Your task to perform on an android device: uninstall "eBay: The shopping marketplace" Image 0: 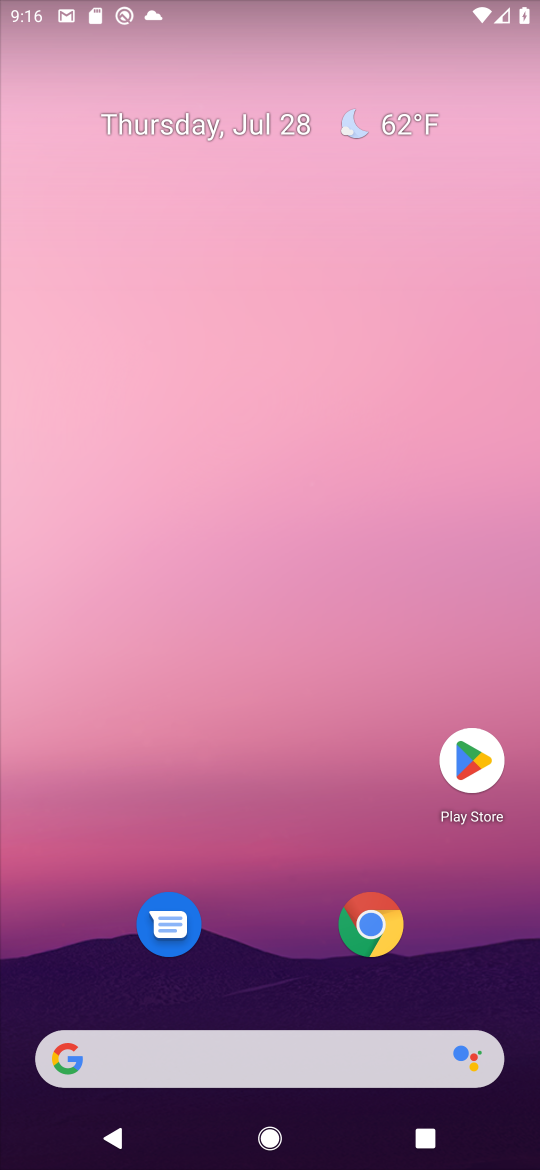
Step 0: press home button
Your task to perform on an android device: uninstall "eBay: The shopping marketplace" Image 1: 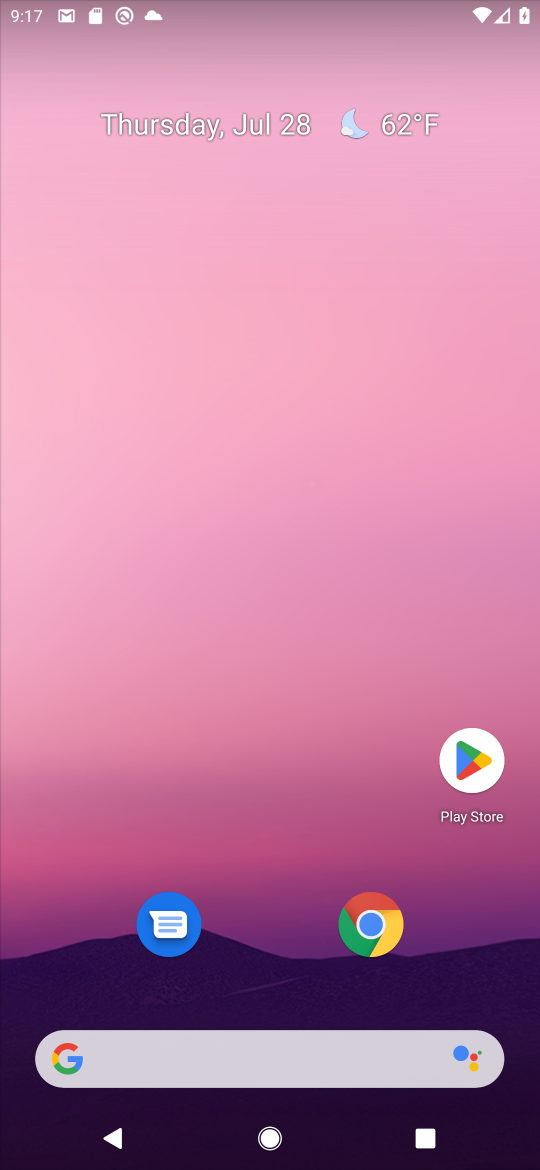
Step 1: click (467, 771)
Your task to perform on an android device: uninstall "eBay: The shopping marketplace" Image 2: 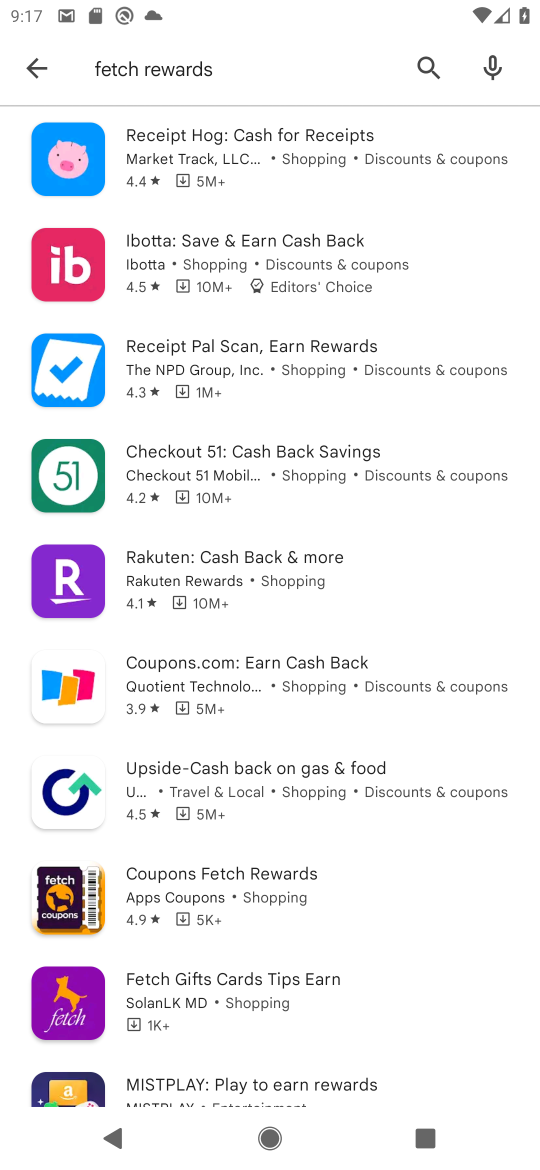
Step 2: click (466, 776)
Your task to perform on an android device: uninstall "eBay: The shopping marketplace" Image 3: 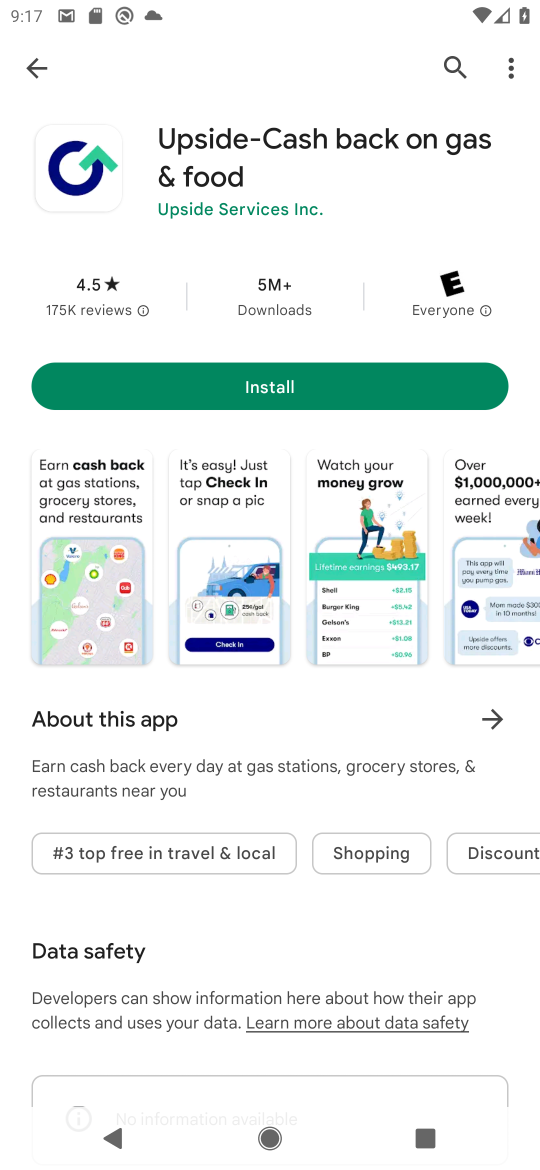
Step 3: click (33, 65)
Your task to perform on an android device: uninstall "eBay: The shopping marketplace" Image 4: 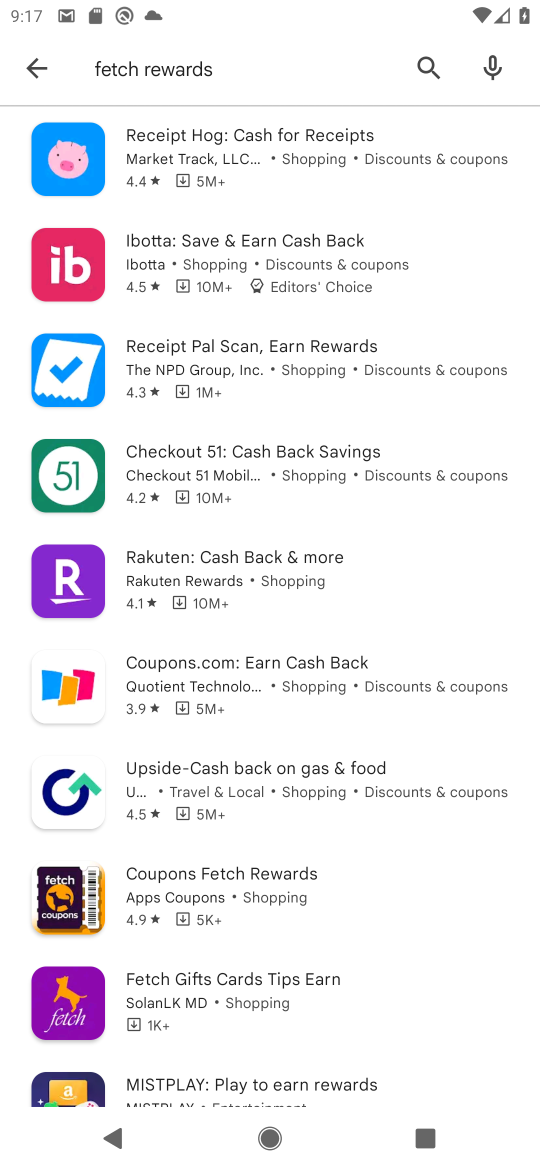
Step 4: click (422, 51)
Your task to perform on an android device: uninstall "eBay: The shopping marketplace" Image 5: 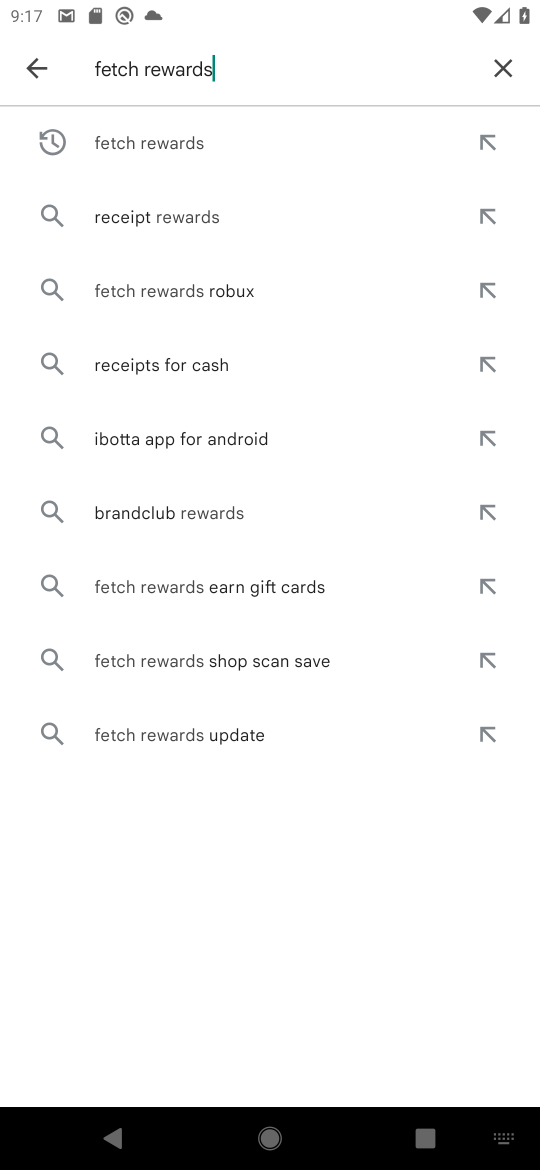
Step 5: click (500, 67)
Your task to perform on an android device: uninstall "eBay: The shopping marketplace" Image 6: 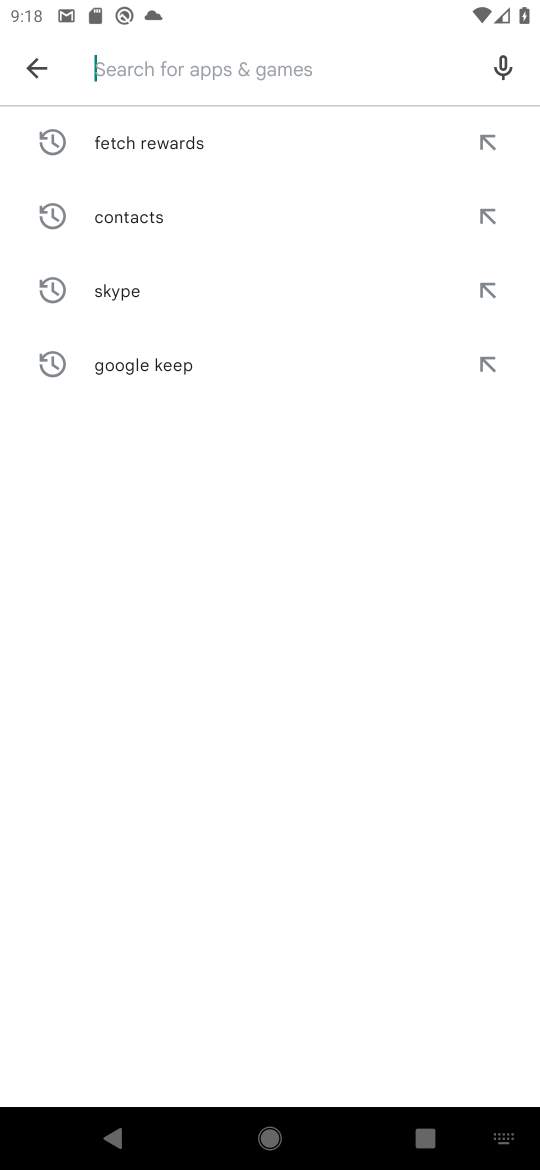
Step 6: type "eBay: The shopping marketplace"
Your task to perform on an android device: uninstall "eBay: The shopping marketplace" Image 7: 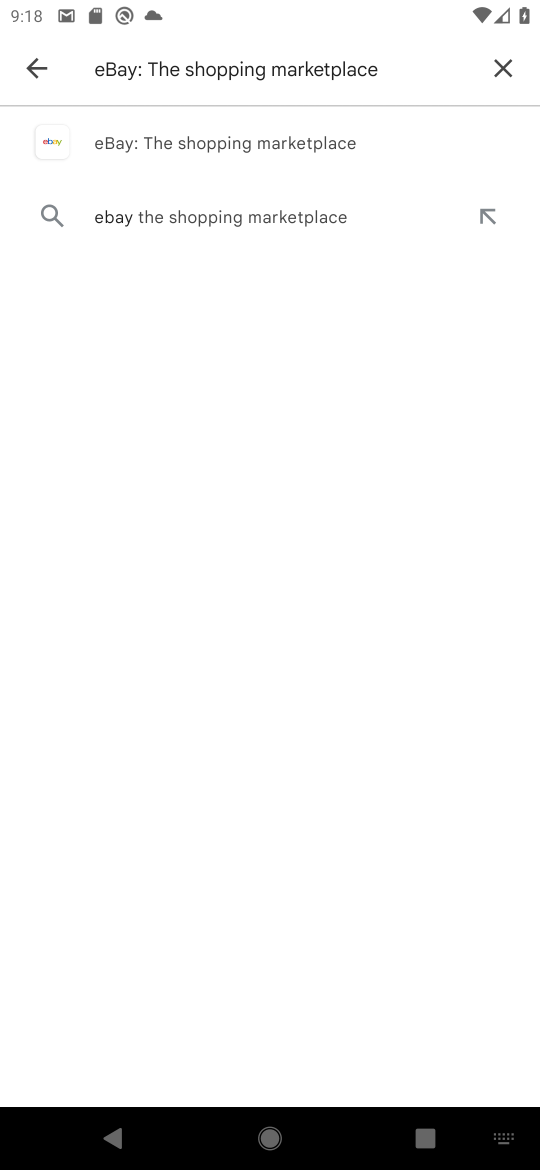
Step 7: click (249, 147)
Your task to perform on an android device: uninstall "eBay: The shopping marketplace" Image 8: 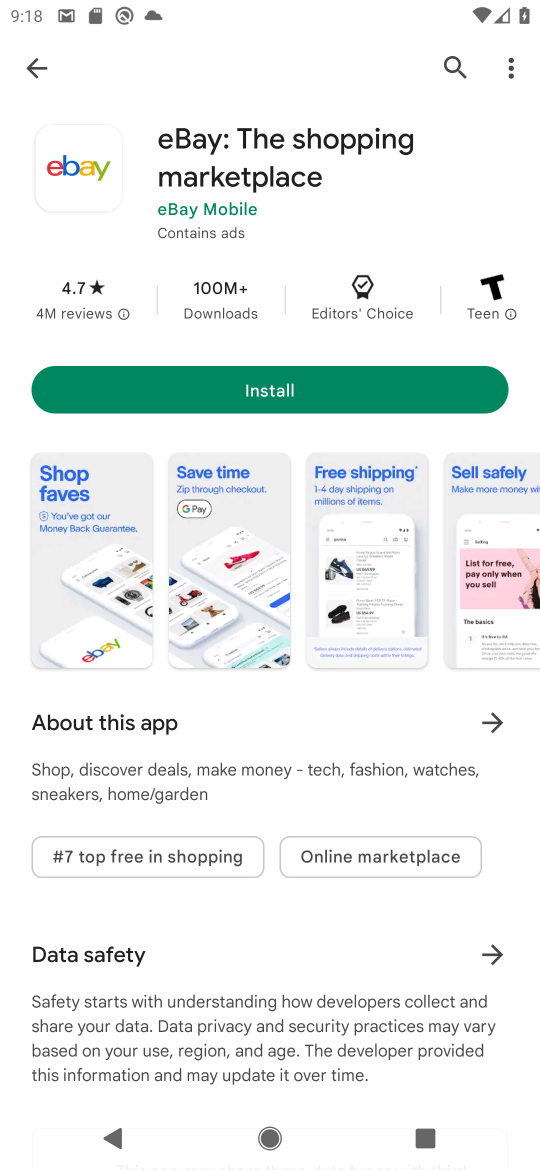
Step 8: task complete